Your task to perform on an android device: Add "asus zenbook" to the cart on newegg, then select checkout. Image 0: 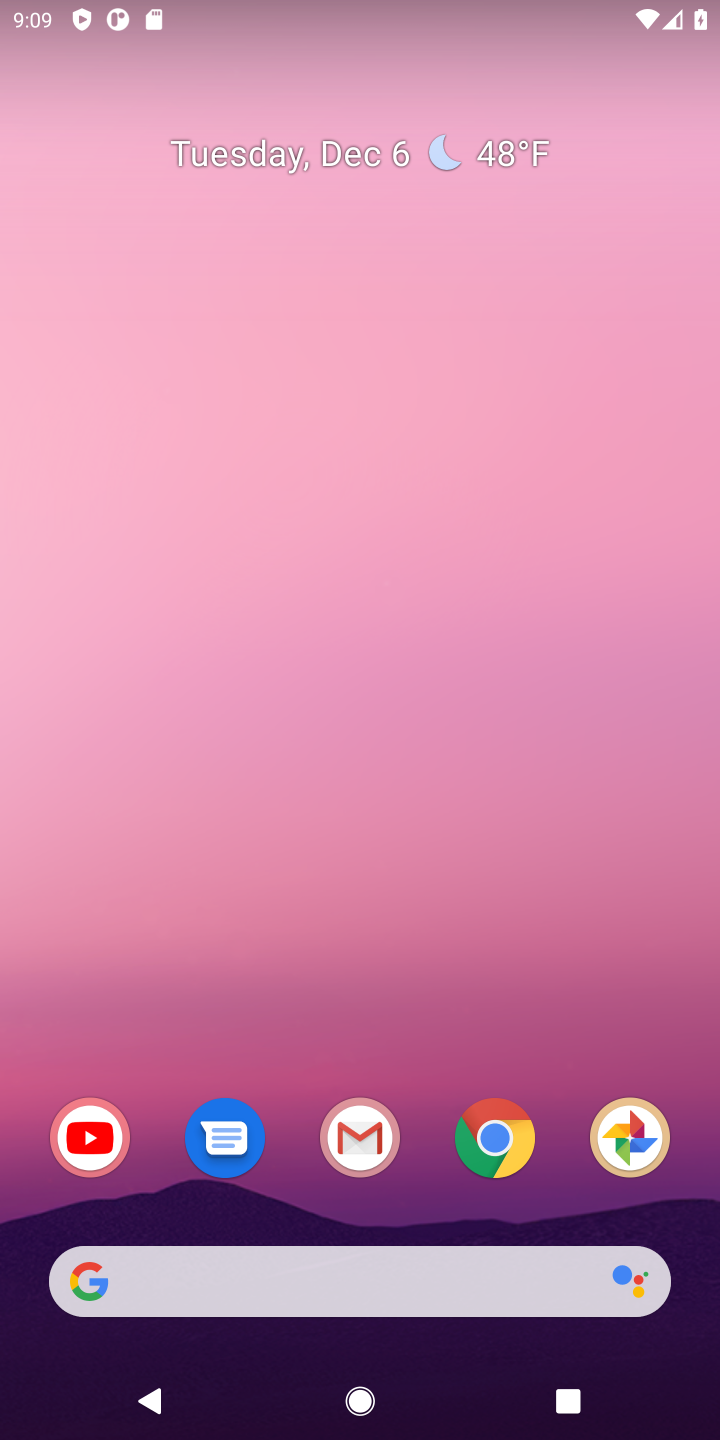
Step 0: click (495, 1163)
Your task to perform on an android device: Add "asus zenbook" to the cart on newegg, then select checkout. Image 1: 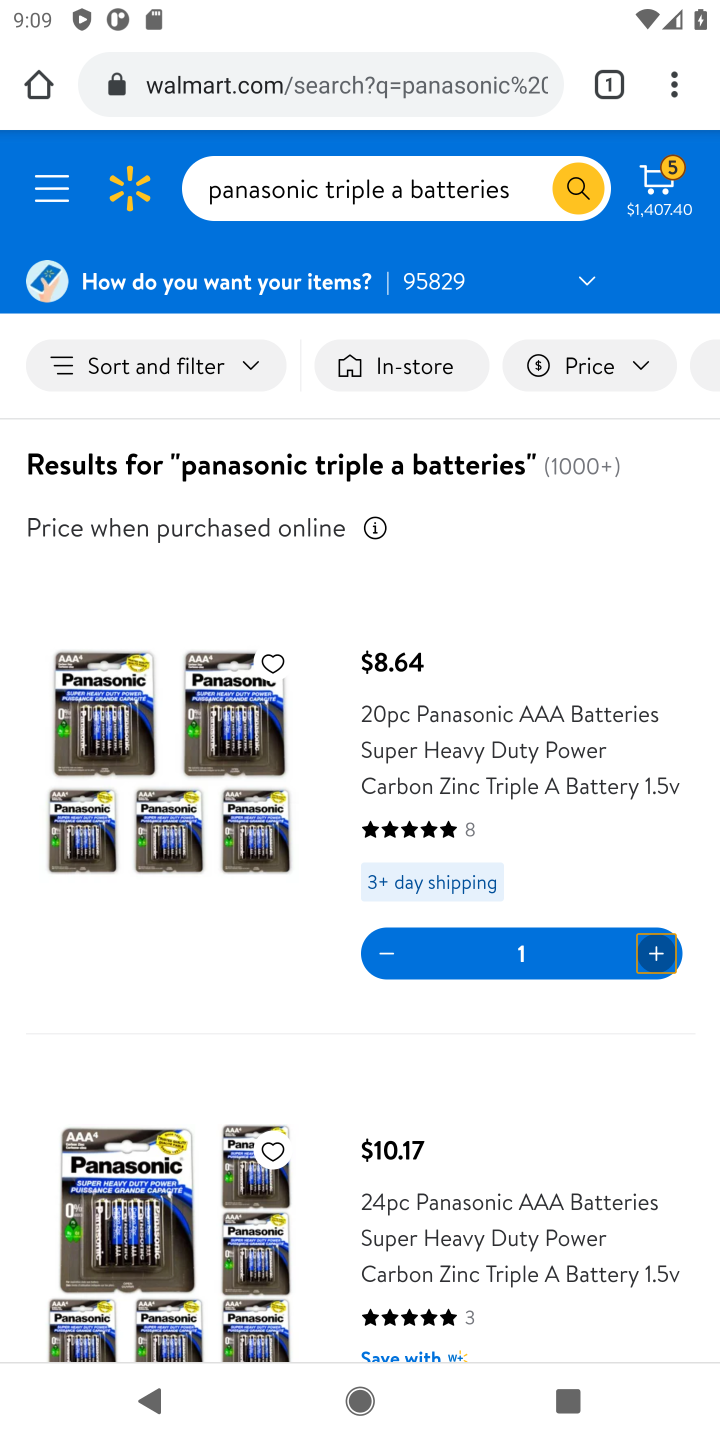
Step 1: click (267, 86)
Your task to perform on an android device: Add "asus zenbook" to the cart on newegg, then select checkout. Image 2: 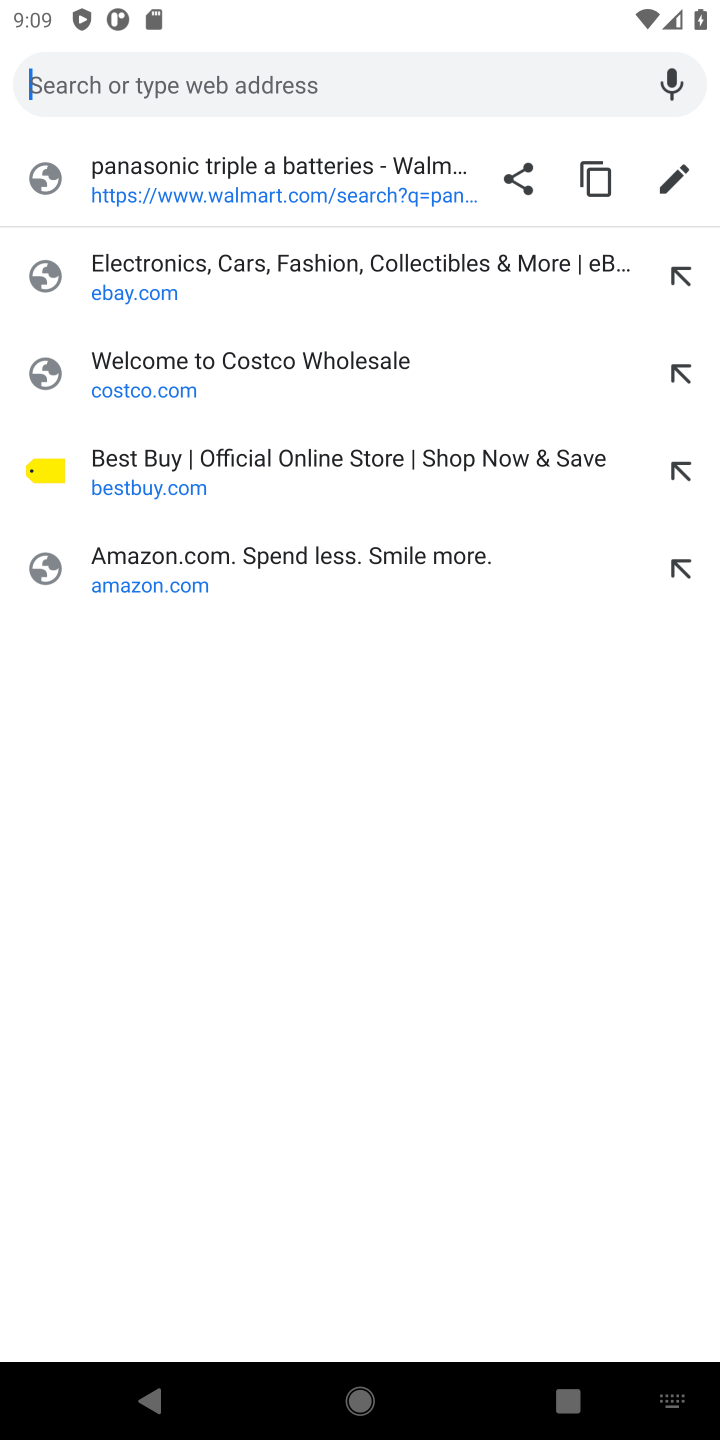
Step 2: type "newegg.com"
Your task to perform on an android device: Add "asus zenbook" to the cart on newegg, then select checkout. Image 3: 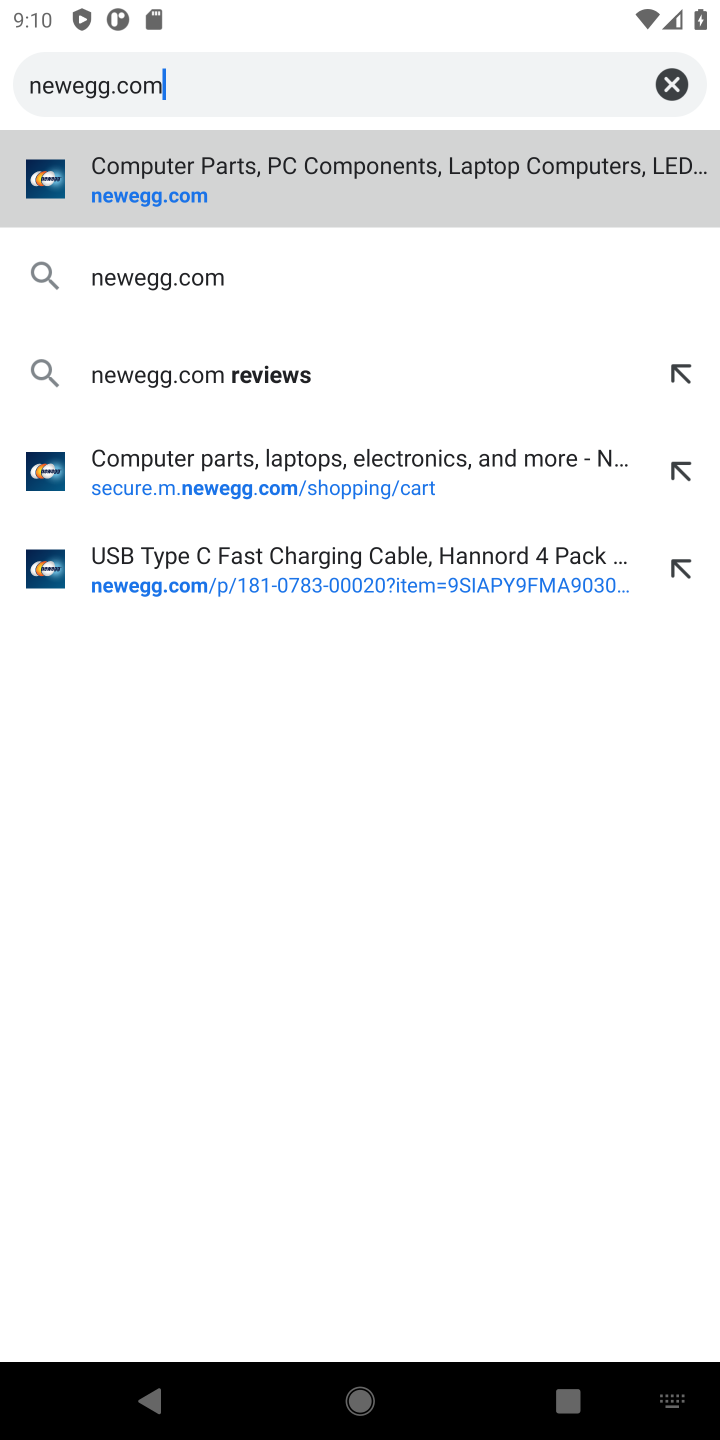
Step 3: click (206, 193)
Your task to perform on an android device: Add "asus zenbook" to the cart on newegg, then select checkout. Image 4: 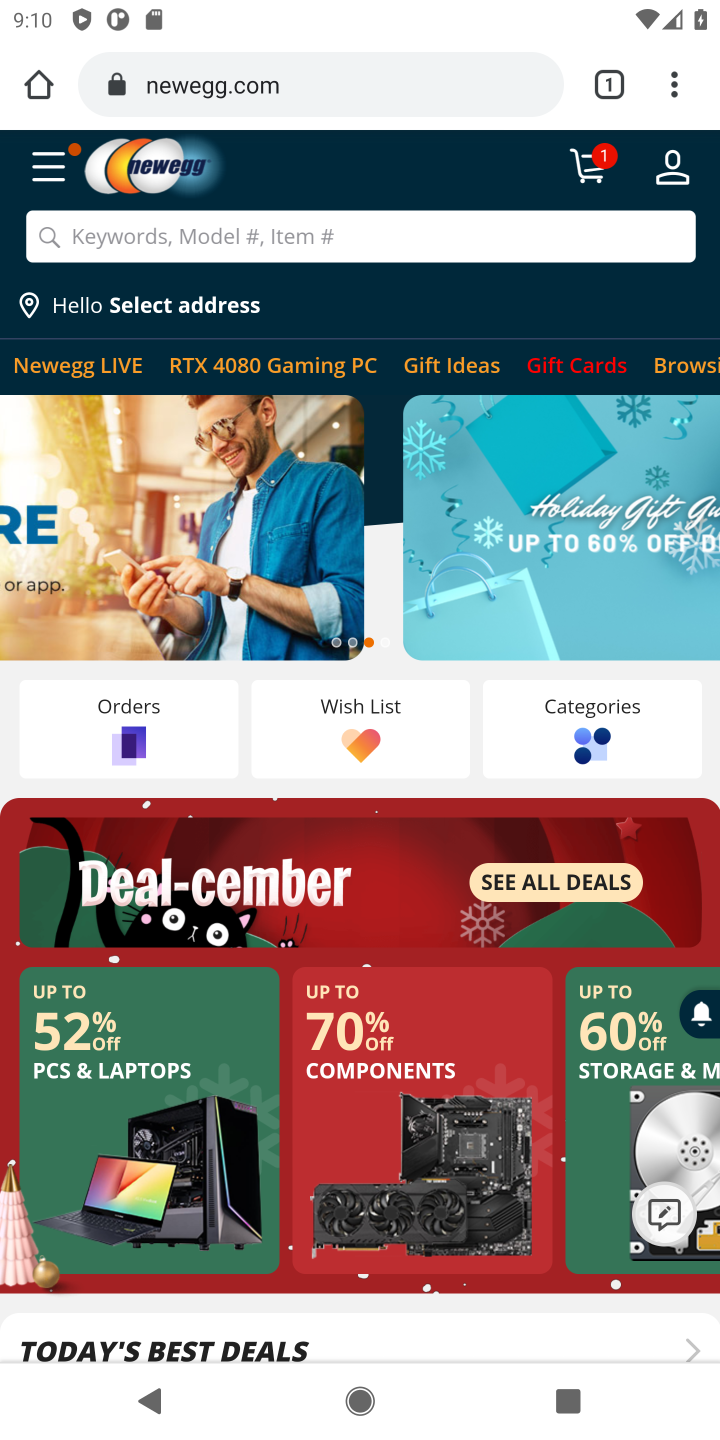
Step 4: click (337, 263)
Your task to perform on an android device: Add "asus zenbook" to the cart on newegg, then select checkout. Image 5: 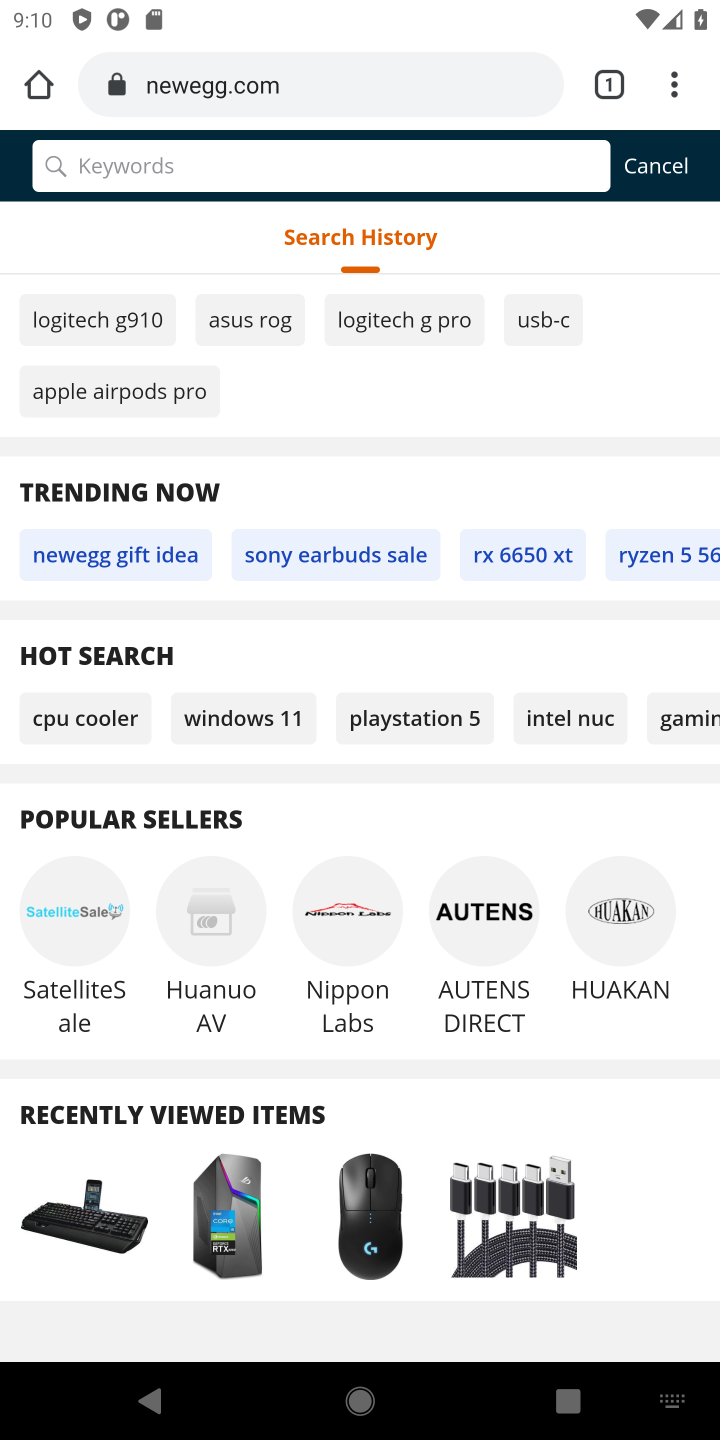
Step 5: type "asus zenbook"
Your task to perform on an android device: Add "asus zenbook" to the cart on newegg, then select checkout. Image 6: 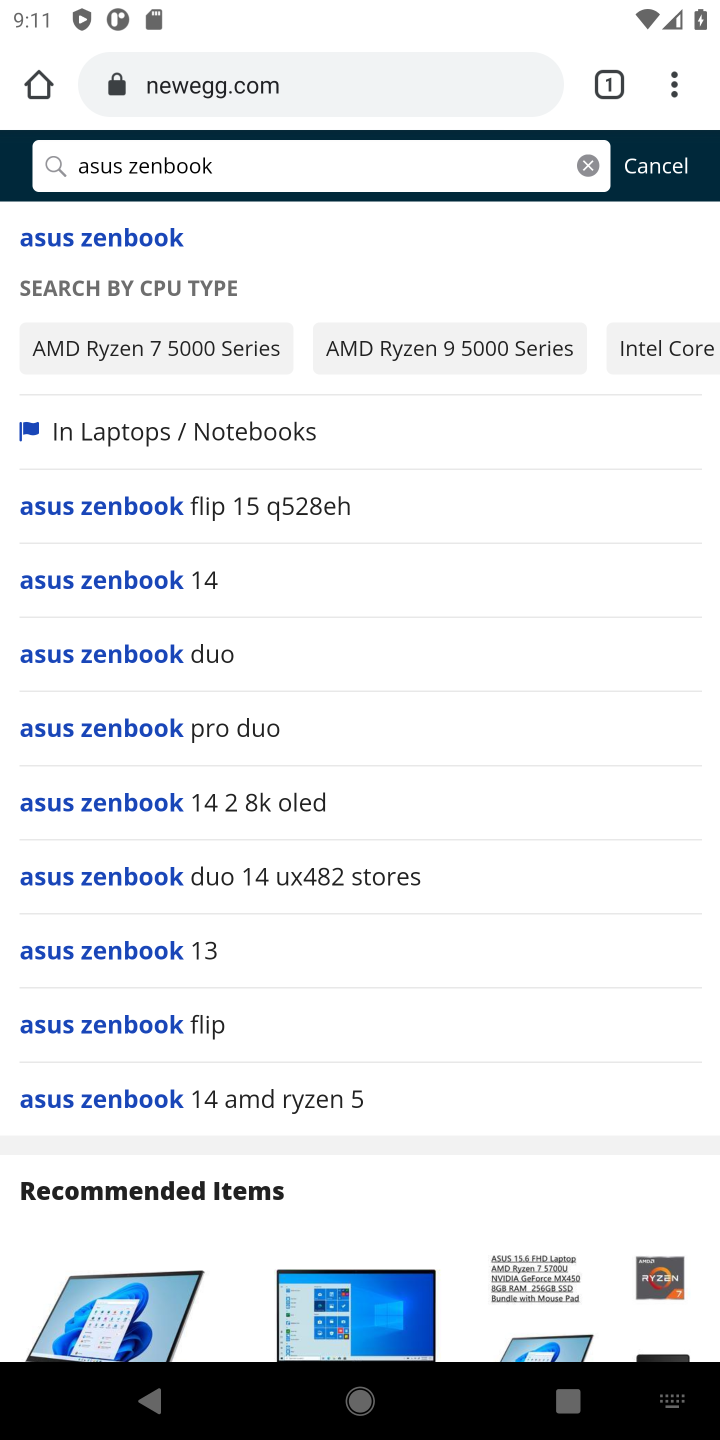
Step 6: click (114, 242)
Your task to perform on an android device: Add "asus zenbook" to the cart on newegg, then select checkout. Image 7: 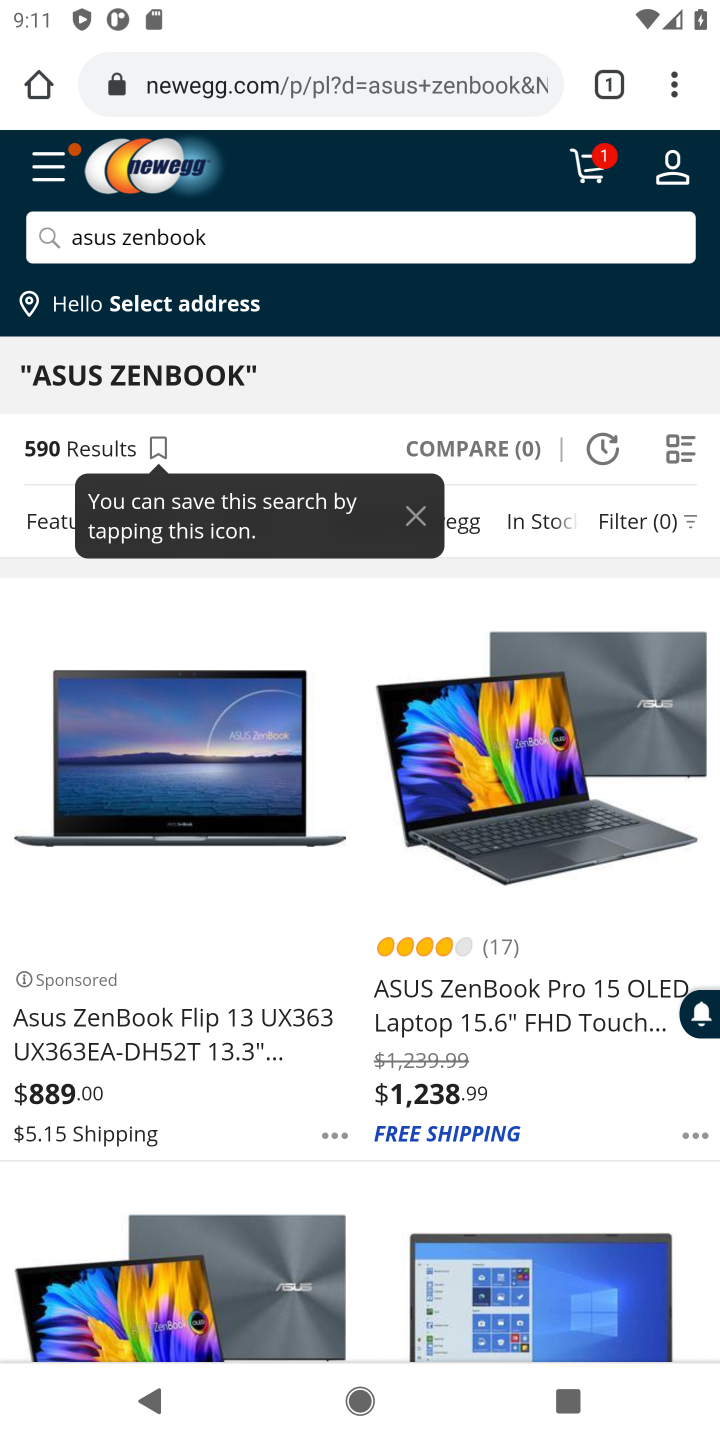
Step 7: click (180, 1028)
Your task to perform on an android device: Add "asus zenbook" to the cart on newegg, then select checkout. Image 8: 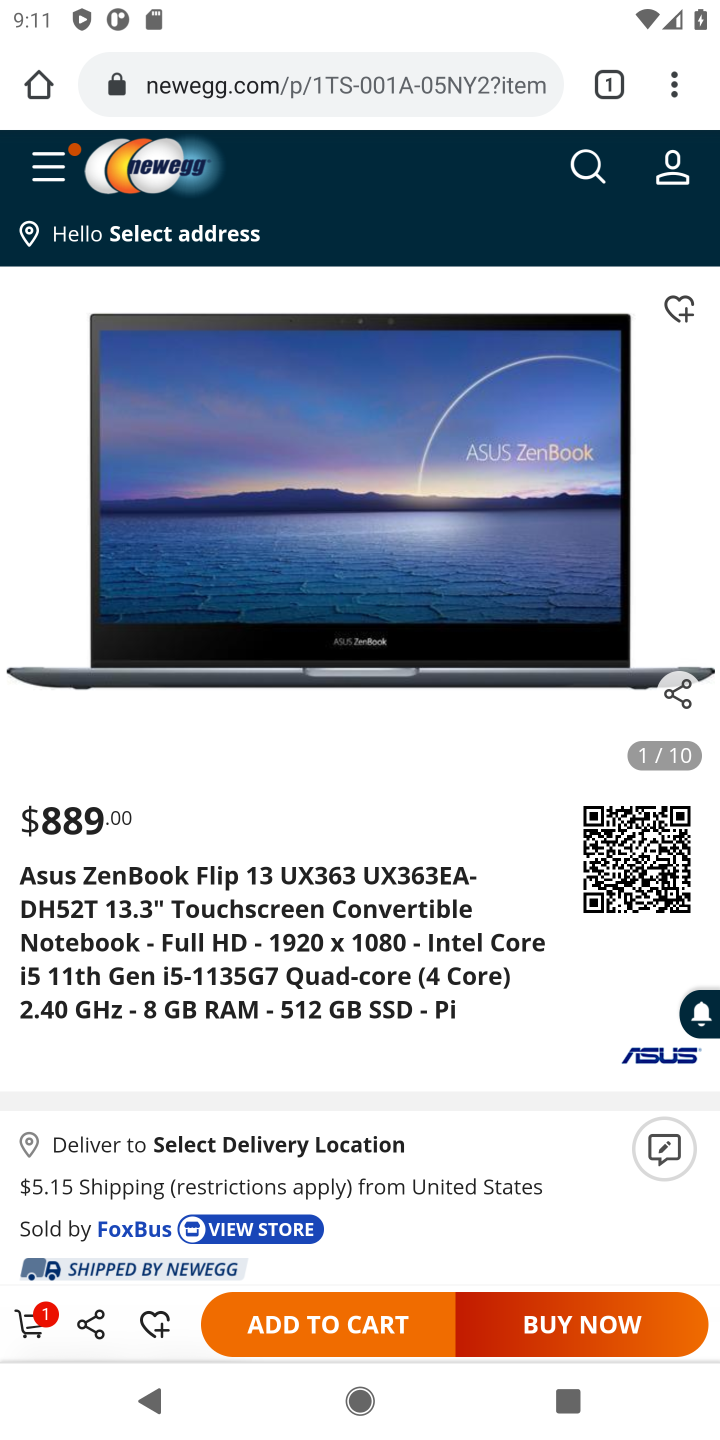
Step 8: click (336, 1313)
Your task to perform on an android device: Add "asus zenbook" to the cart on newegg, then select checkout. Image 9: 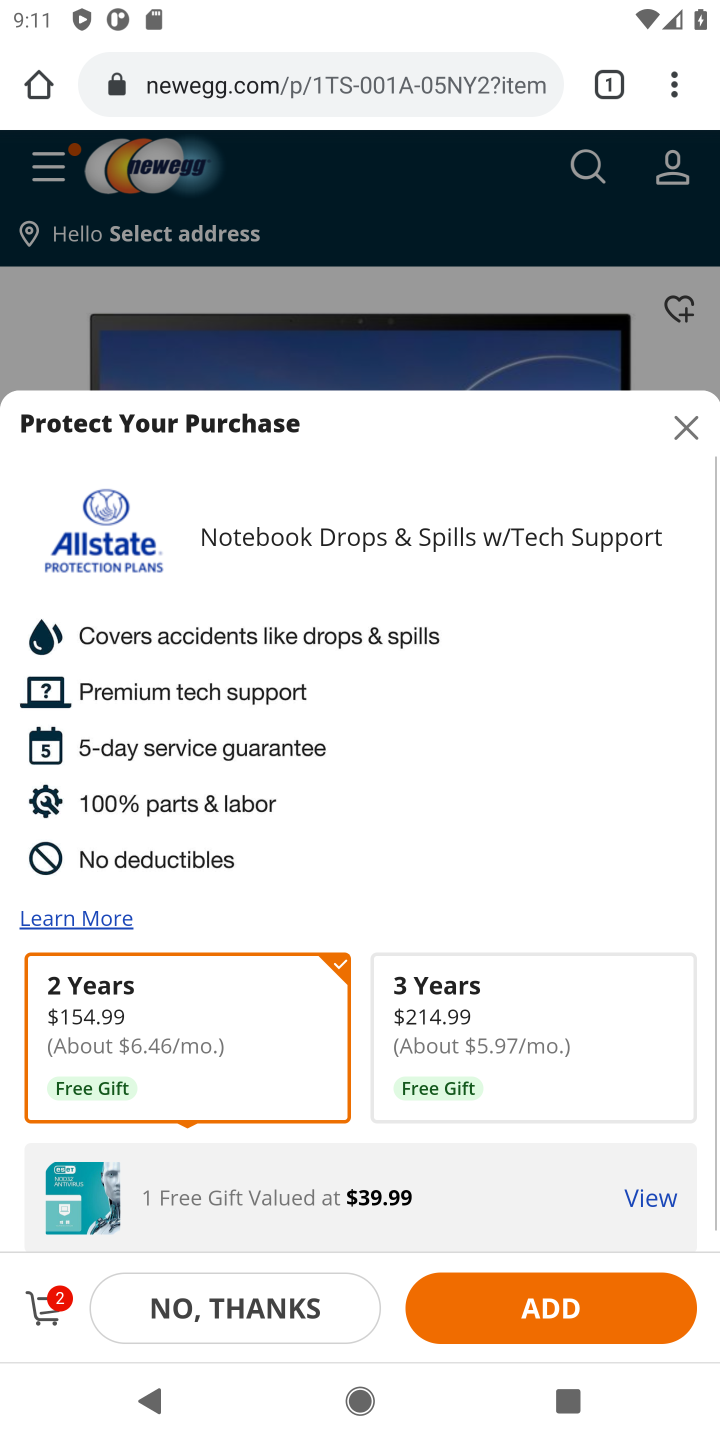
Step 9: click (44, 1312)
Your task to perform on an android device: Add "asus zenbook" to the cart on newegg, then select checkout. Image 10: 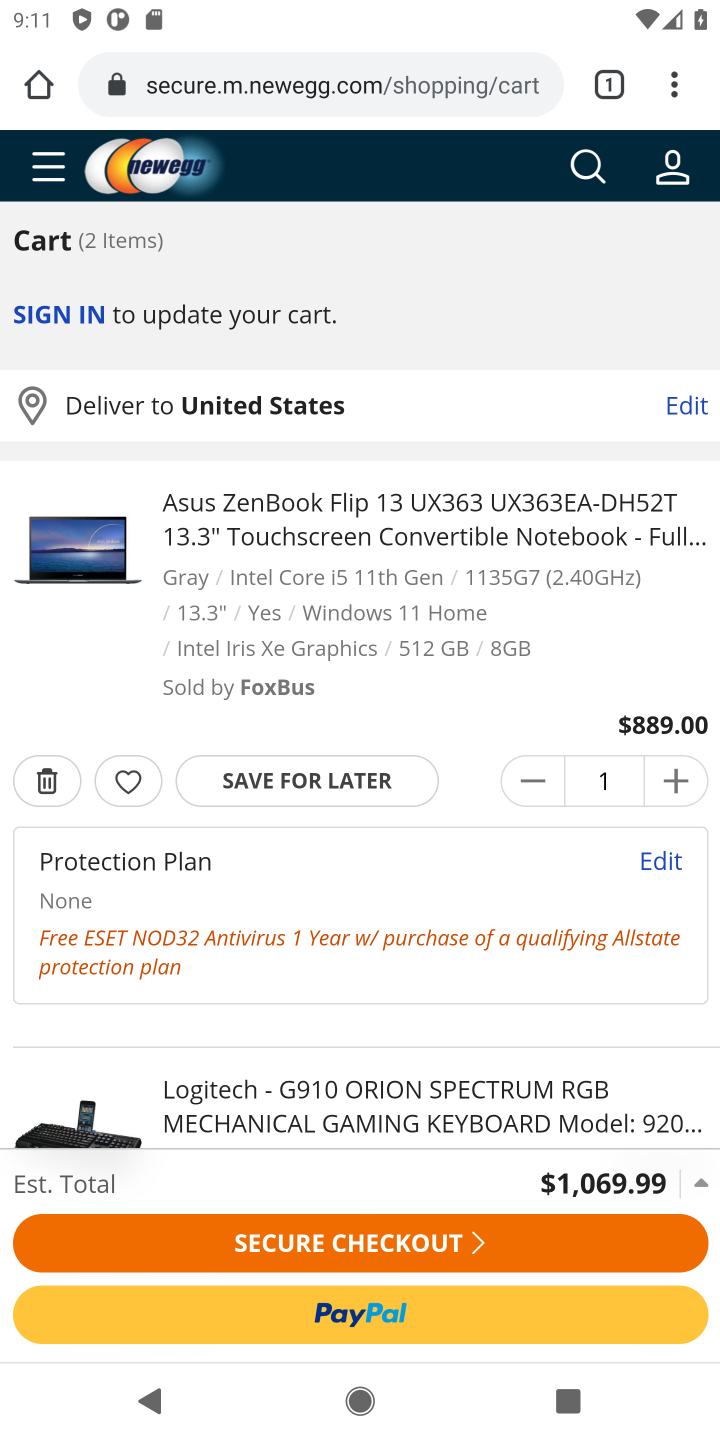
Step 10: click (149, 1281)
Your task to perform on an android device: Add "asus zenbook" to the cart on newegg, then select checkout. Image 11: 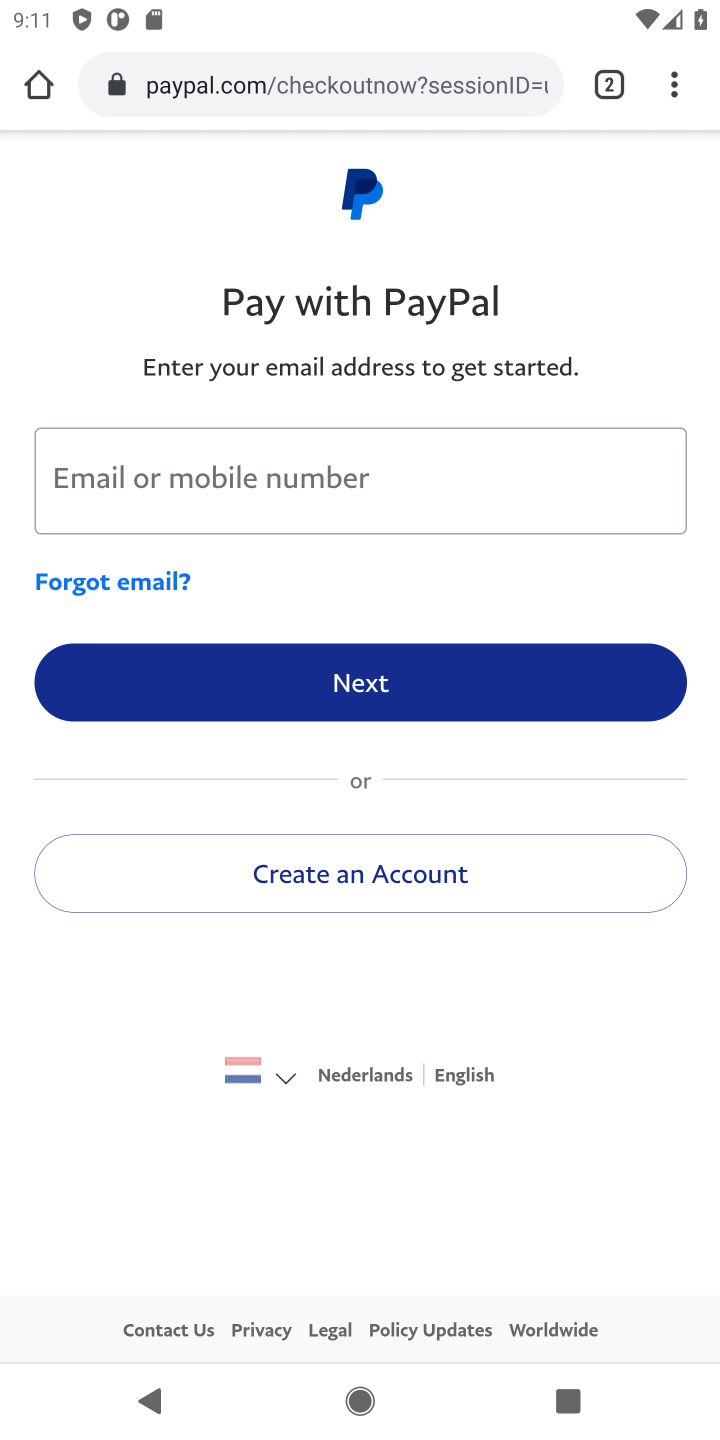
Step 11: task complete